Your task to perform on an android device: toggle javascript in the chrome app Image 0: 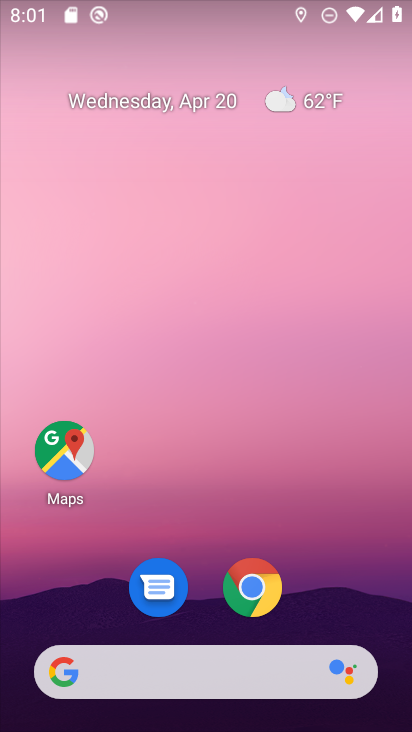
Step 0: click (250, 592)
Your task to perform on an android device: toggle javascript in the chrome app Image 1: 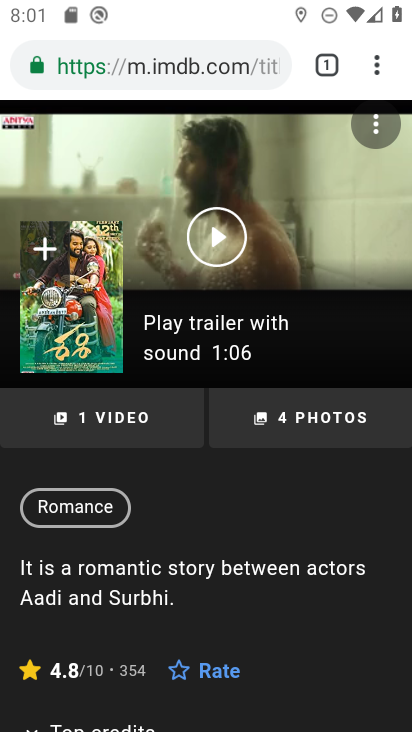
Step 1: click (375, 65)
Your task to perform on an android device: toggle javascript in the chrome app Image 2: 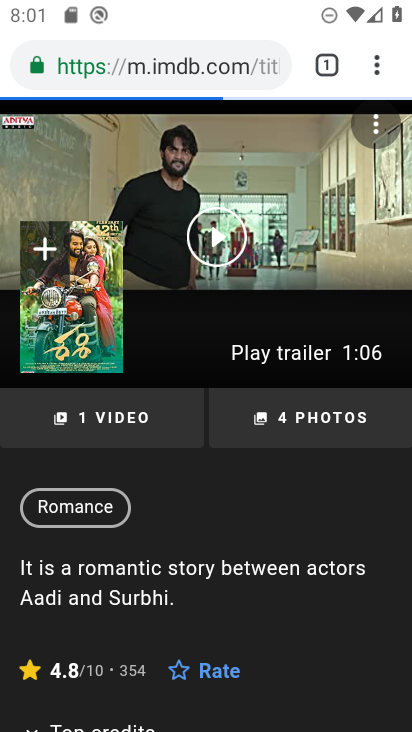
Step 2: click (375, 65)
Your task to perform on an android device: toggle javascript in the chrome app Image 3: 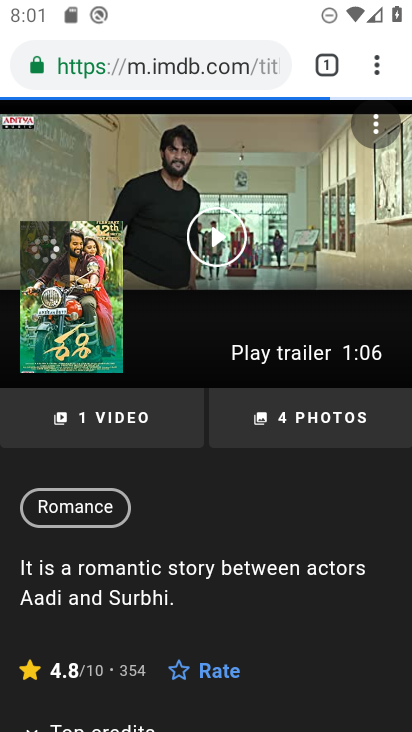
Step 3: click (377, 78)
Your task to perform on an android device: toggle javascript in the chrome app Image 4: 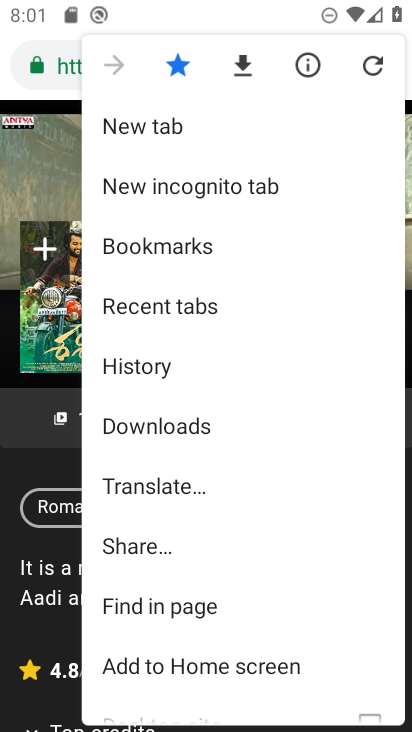
Step 4: drag from (168, 643) to (155, 128)
Your task to perform on an android device: toggle javascript in the chrome app Image 5: 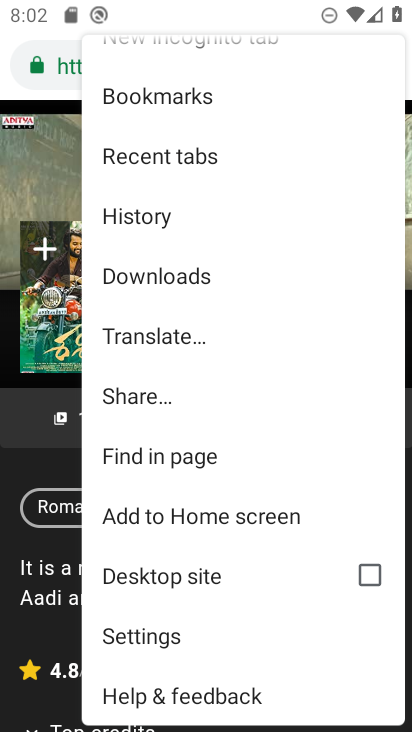
Step 5: click (142, 636)
Your task to perform on an android device: toggle javascript in the chrome app Image 6: 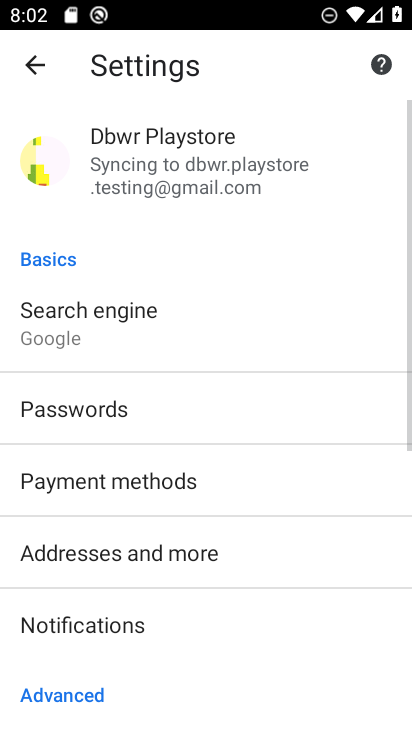
Step 6: drag from (155, 645) to (86, 120)
Your task to perform on an android device: toggle javascript in the chrome app Image 7: 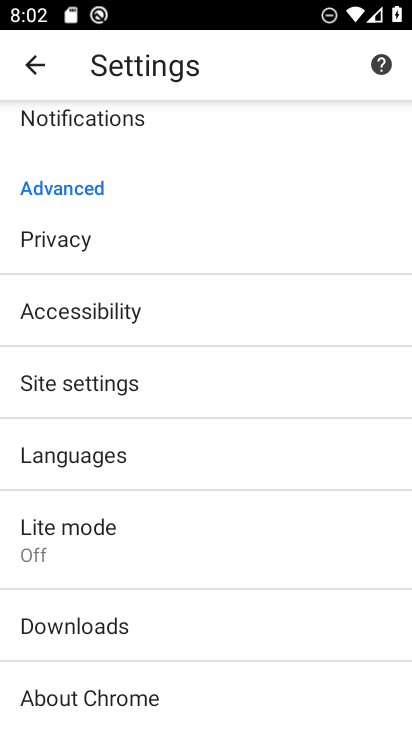
Step 7: click (107, 357)
Your task to perform on an android device: toggle javascript in the chrome app Image 8: 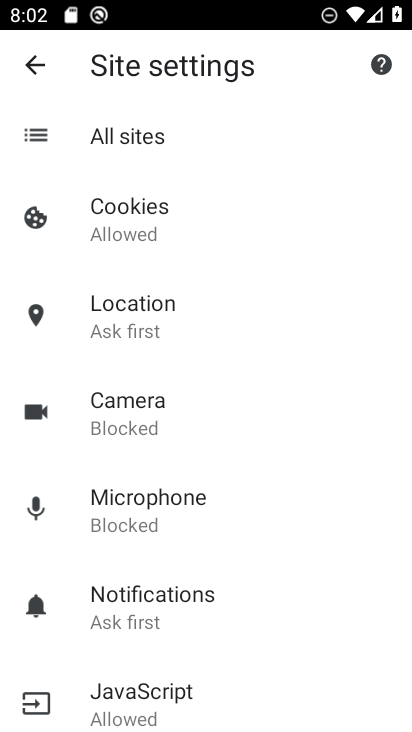
Step 8: click (167, 701)
Your task to perform on an android device: toggle javascript in the chrome app Image 9: 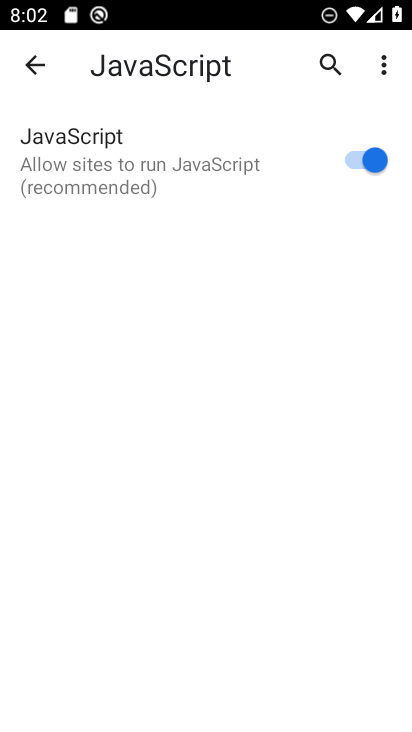
Step 9: click (366, 159)
Your task to perform on an android device: toggle javascript in the chrome app Image 10: 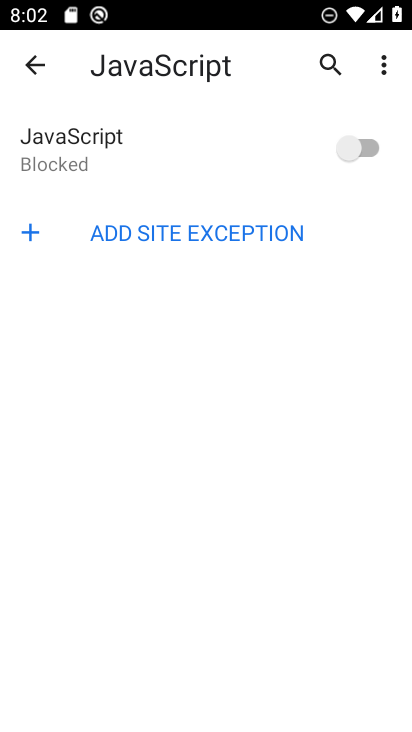
Step 10: task complete